Your task to perform on an android device: Go to notification settings Image 0: 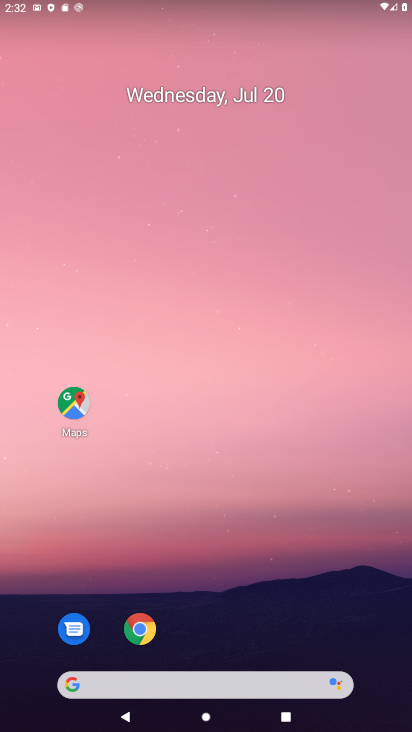
Step 0: press home button
Your task to perform on an android device: Go to notification settings Image 1: 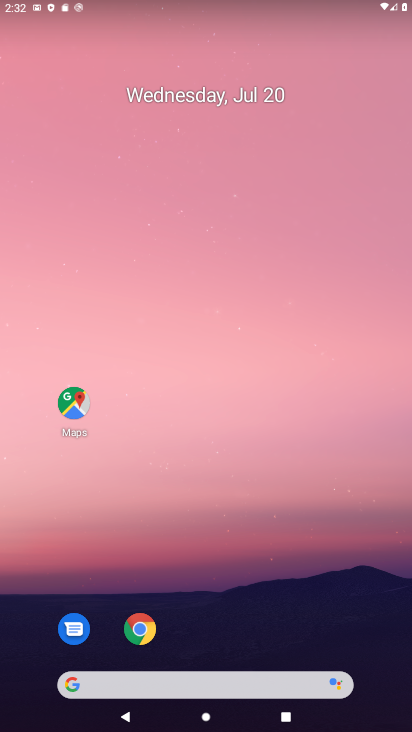
Step 1: drag from (171, 692) to (62, 41)
Your task to perform on an android device: Go to notification settings Image 2: 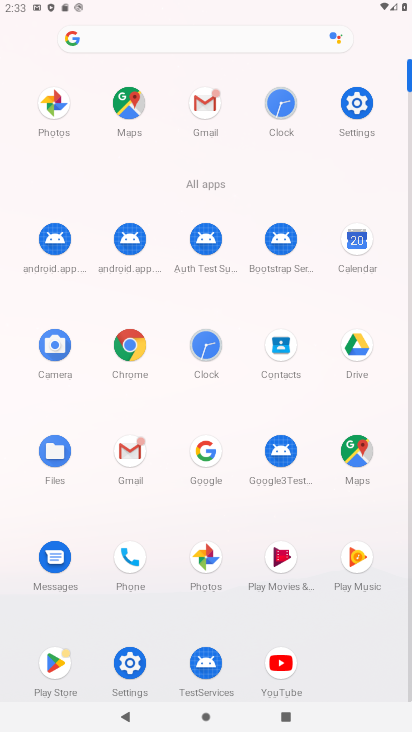
Step 2: click (111, 652)
Your task to perform on an android device: Go to notification settings Image 3: 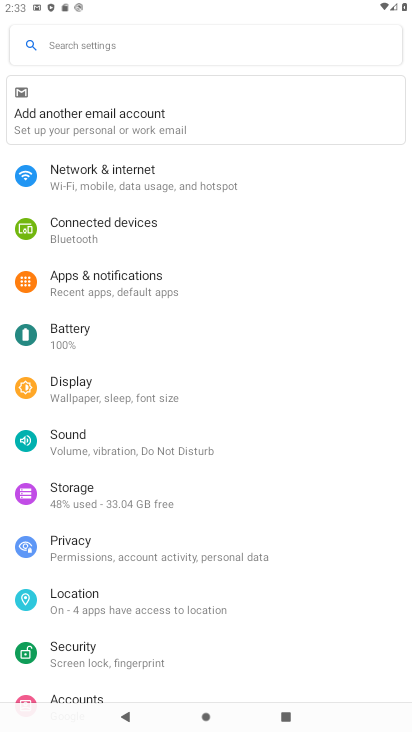
Step 3: click (37, 273)
Your task to perform on an android device: Go to notification settings Image 4: 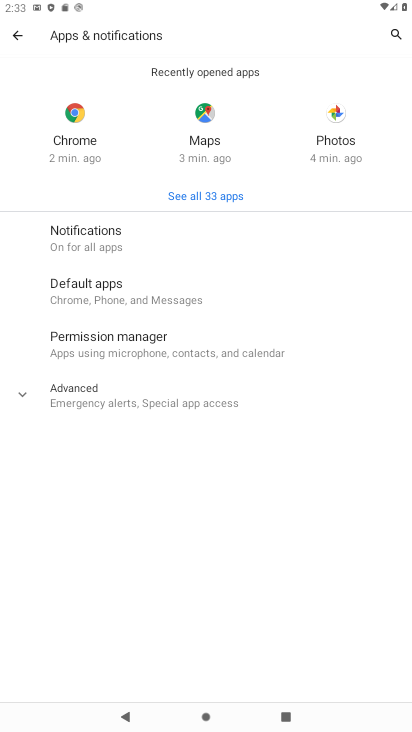
Step 4: click (79, 229)
Your task to perform on an android device: Go to notification settings Image 5: 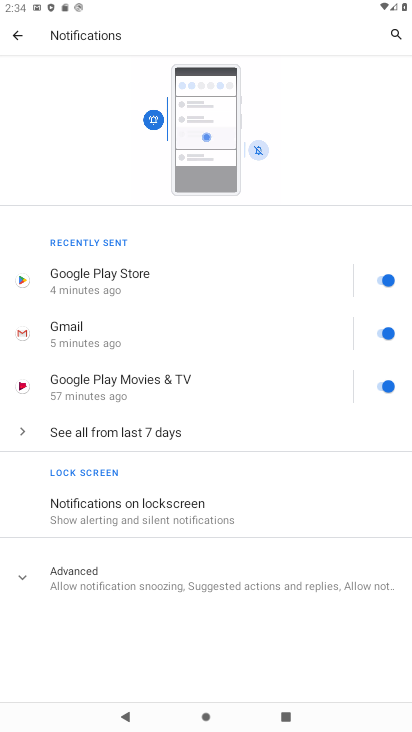
Step 5: click (77, 576)
Your task to perform on an android device: Go to notification settings Image 6: 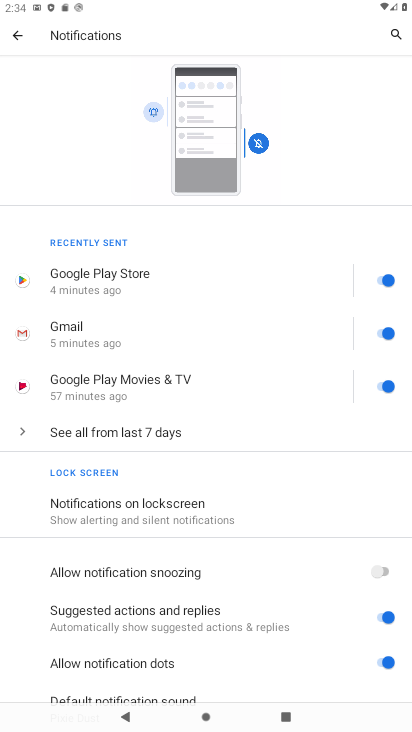
Step 6: drag from (230, 408) to (212, 105)
Your task to perform on an android device: Go to notification settings Image 7: 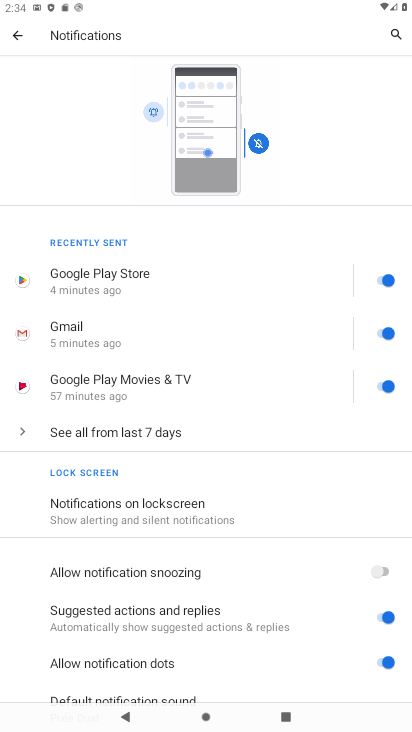
Step 7: click (370, 610)
Your task to perform on an android device: Go to notification settings Image 8: 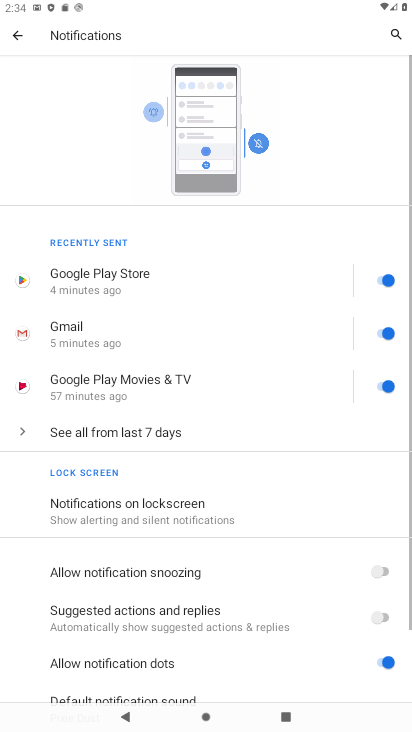
Step 8: click (380, 674)
Your task to perform on an android device: Go to notification settings Image 9: 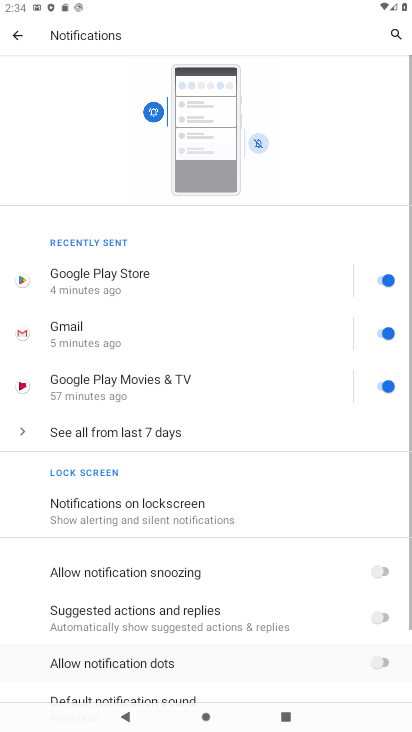
Step 9: click (386, 567)
Your task to perform on an android device: Go to notification settings Image 10: 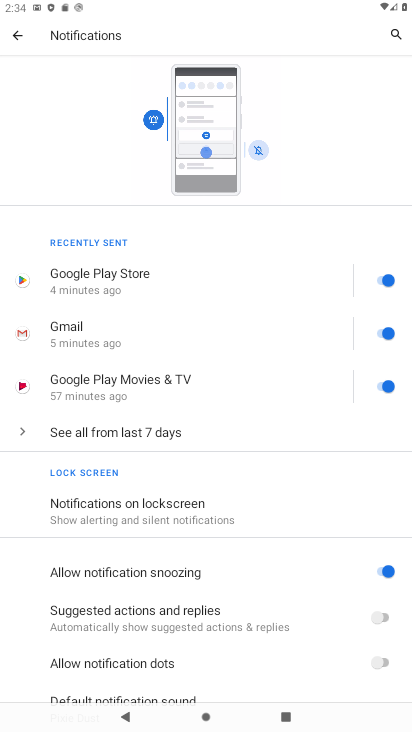
Step 10: task complete